Your task to perform on an android device: move a message to another label in the gmail app Image 0: 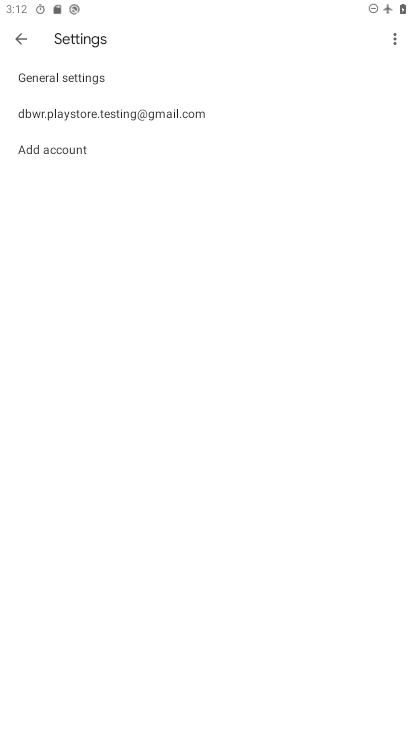
Step 0: press home button
Your task to perform on an android device: move a message to another label in the gmail app Image 1: 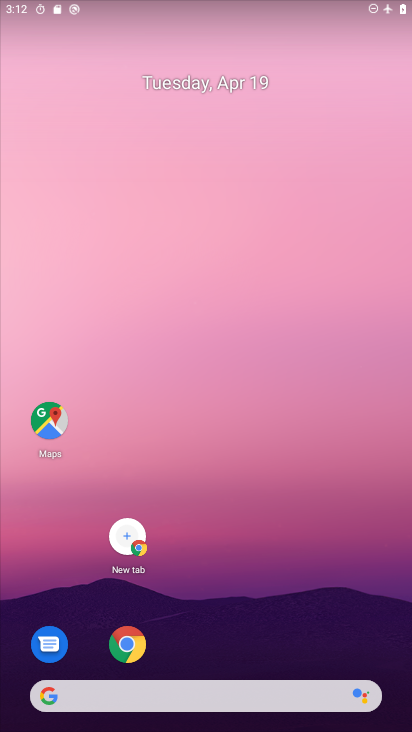
Step 1: drag from (200, 614) to (88, 151)
Your task to perform on an android device: move a message to another label in the gmail app Image 2: 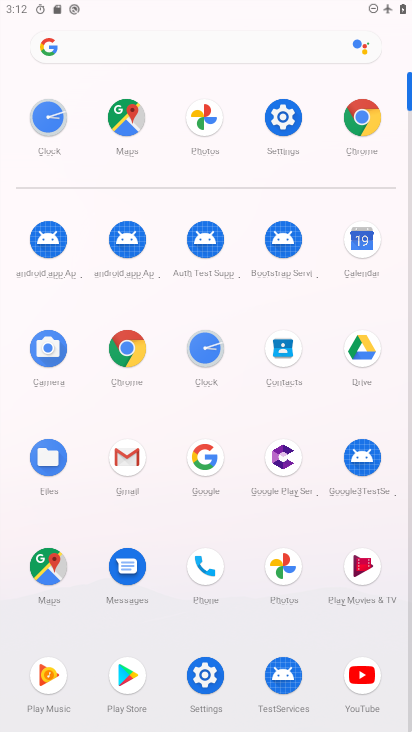
Step 2: click (137, 459)
Your task to perform on an android device: move a message to another label in the gmail app Image 3: 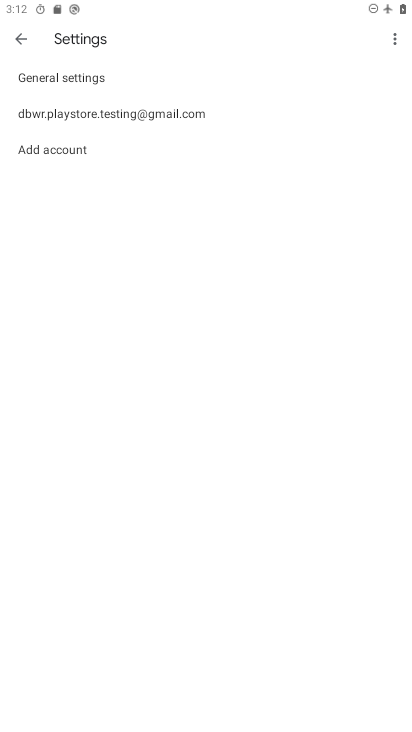
Step 3: click (17, 36)
Your task to perform on an android device: move a message to another label in the gmail app Image 4: 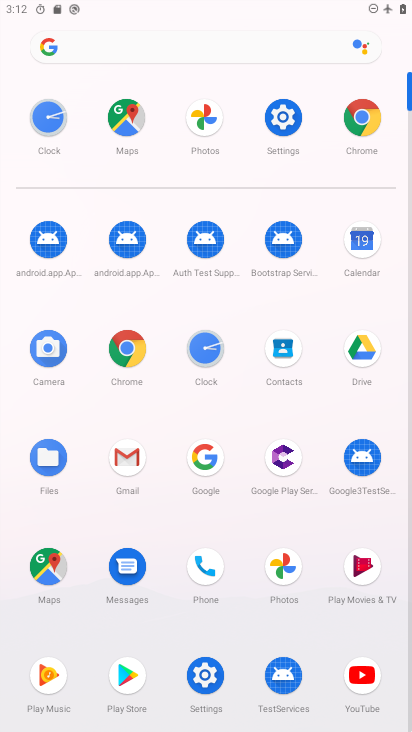
Step 4: click (130, 464)
Your task to perform on an android device: move a message to another label in the gmail app Image 5: 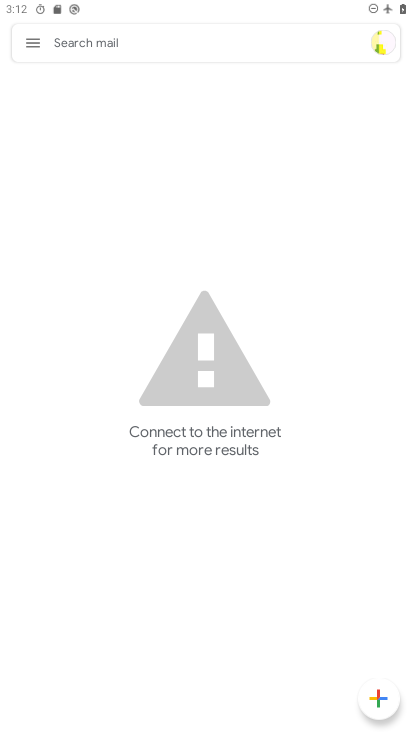
Step 5: click (29, 44)
Your task to perform on an android device: move a message to another label in the gmail app Image 6: 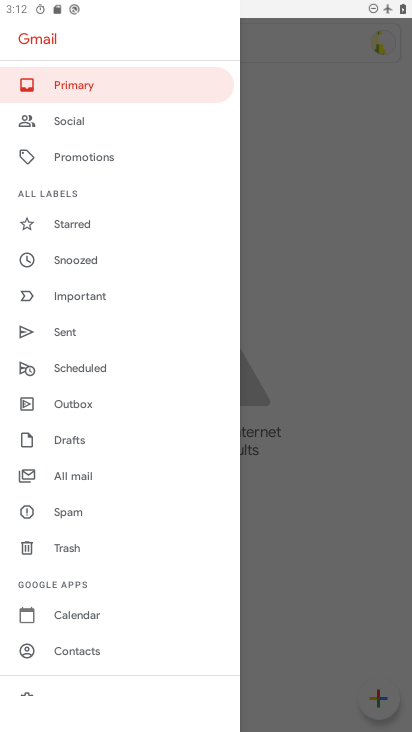
Step 6: click (274, 124)
Your task to perform on an android device: move a message to another label in the gmail app Image 7: 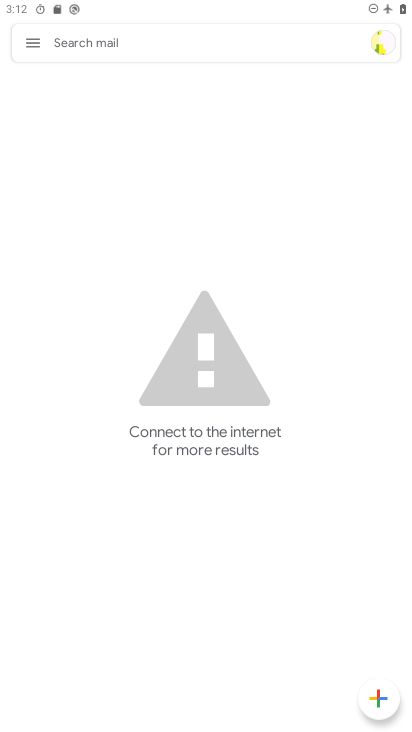
Step 7: task complete